Your task to perform on an android device: Go to battery settings Image 0: 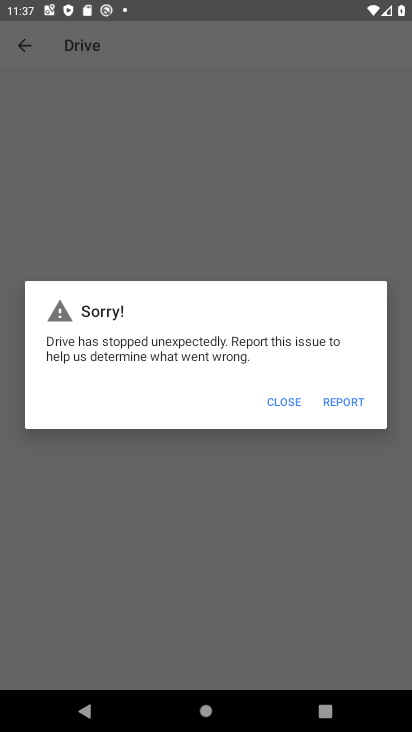
Step 0: press home button
Your task to perform on an android device: Go to battery settings Image 1: 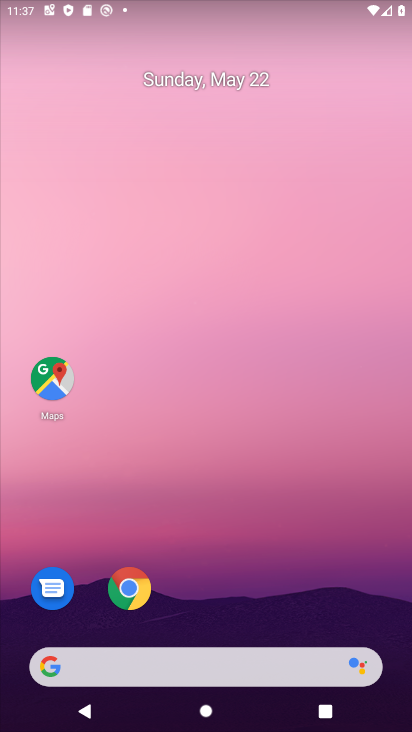
Step 1: drag from (254, 699) to (163, 144)
Your task to perform on an android device: Go to battery settings Image 2: 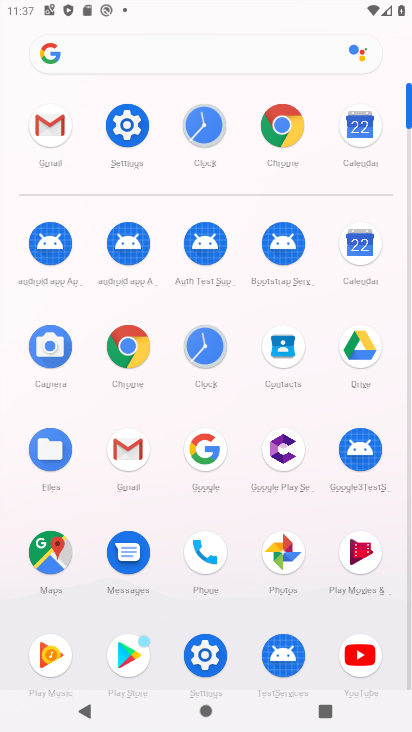
Step 2: click (114, 144)
Your task to perform on an android device: Go to battery settings Image 3: 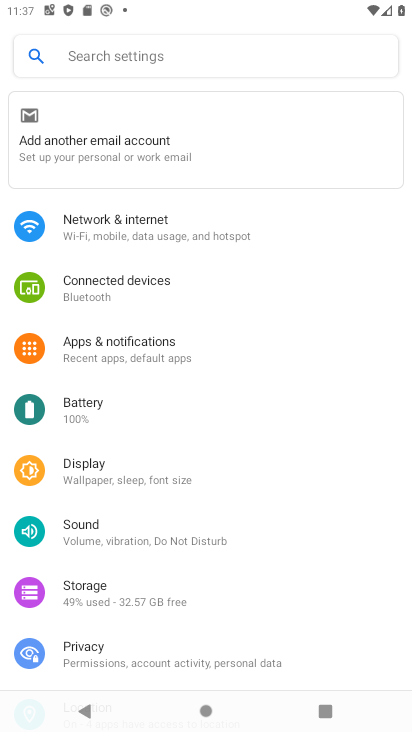
Step 3: click (93, 417)
Your task to perform on an android device: Go to battery settings Image 4: 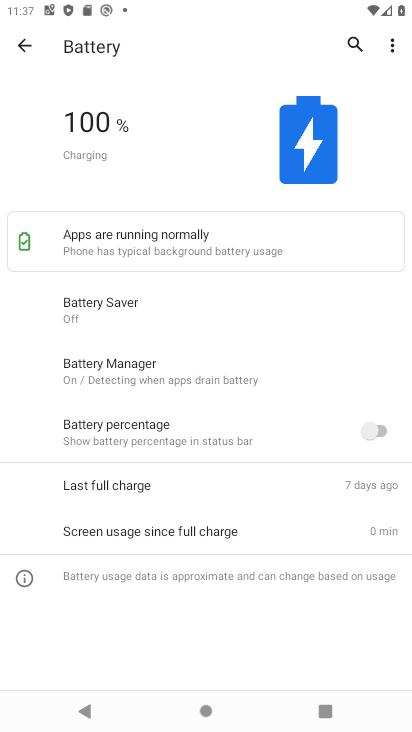
Step 4: task complete